Your task to perform on an android device: open wifi settings Image 0: 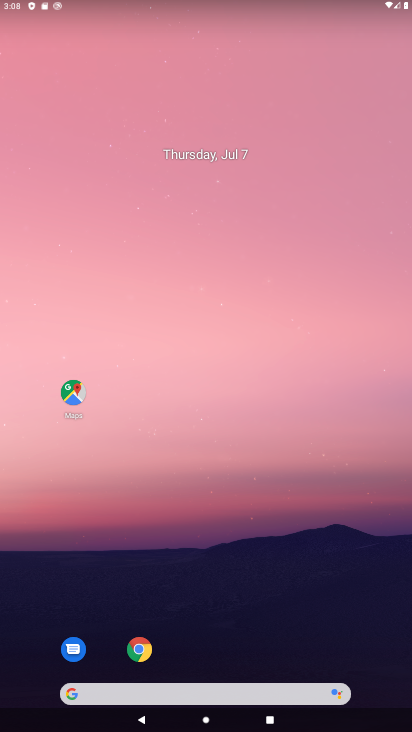
Step 0: drag from (210, 643) to (300, 259)
Your task to perform on an android device: open wifi settings Image 1: 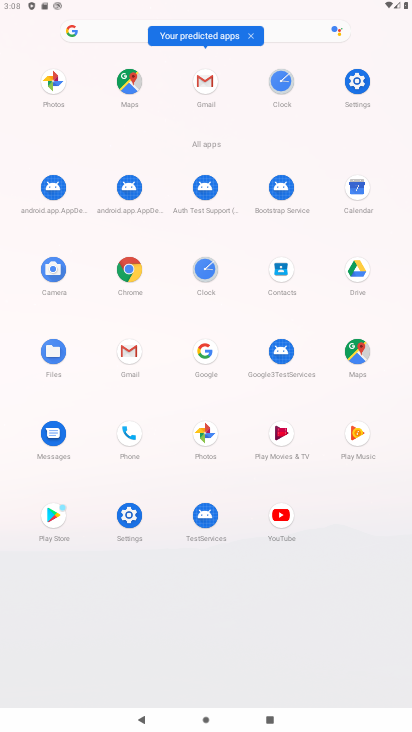
Step 1: click (354, 89)
Your task to perform on an android device: open wifi settings Image 2: 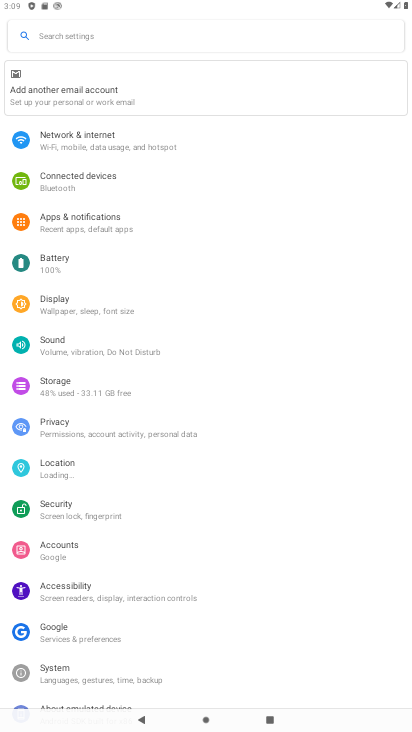
Step 2: click (98, 136)
Your task to perform on an android device: open wifi settings Image 3: 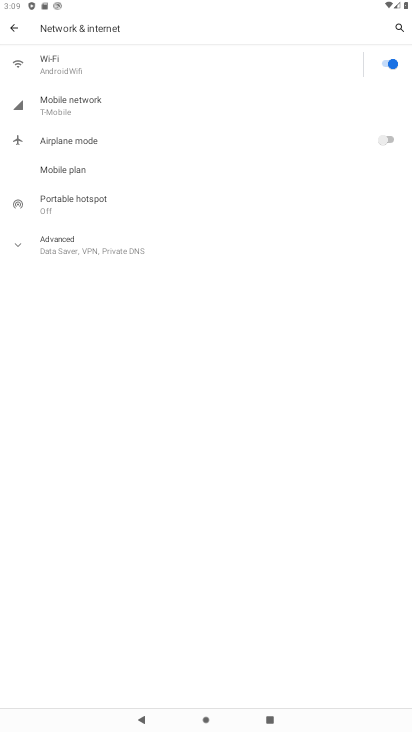
Step 3: click (98, 63)
Your task to perform on an android device: open wifi settings Image 4: 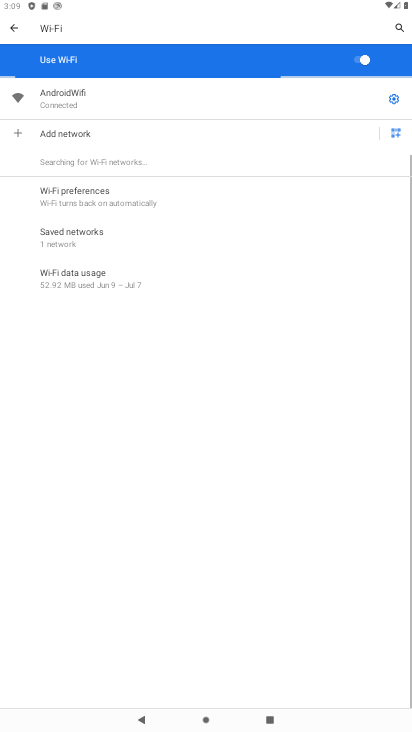
Step 4: click (392, 97)
Your task to perform on an android device: open wifi settings Image 5: 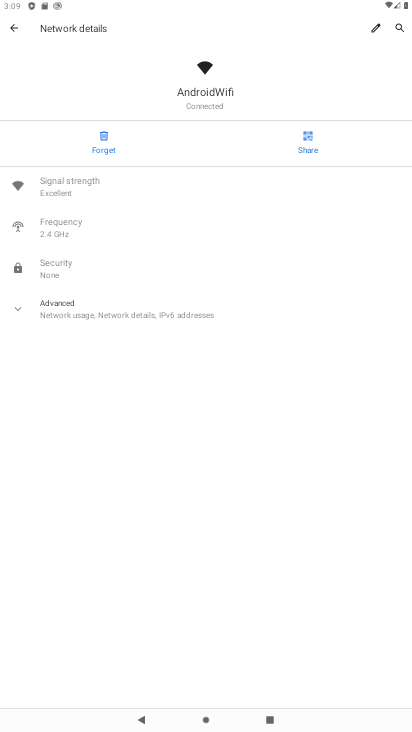
Step 5: task complete